Your task to perform on an android device: Add "logitech g pro" to the cart on amazon.com Image 0: 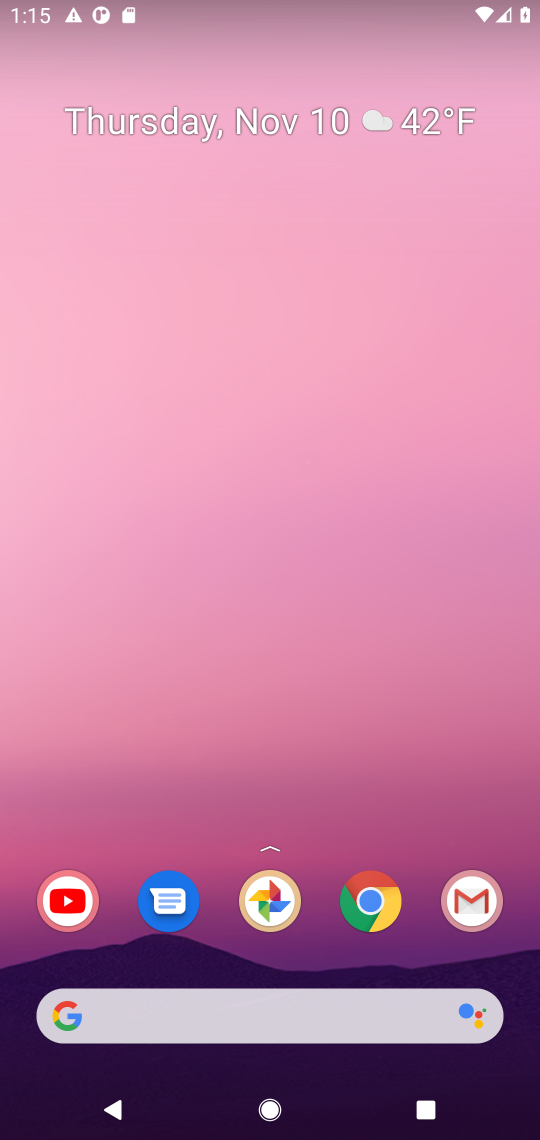
Step 0: click (517, 68)
Your task to perform on an android device: Add "logitech g pro" to the cart on amazon.com Image 1: 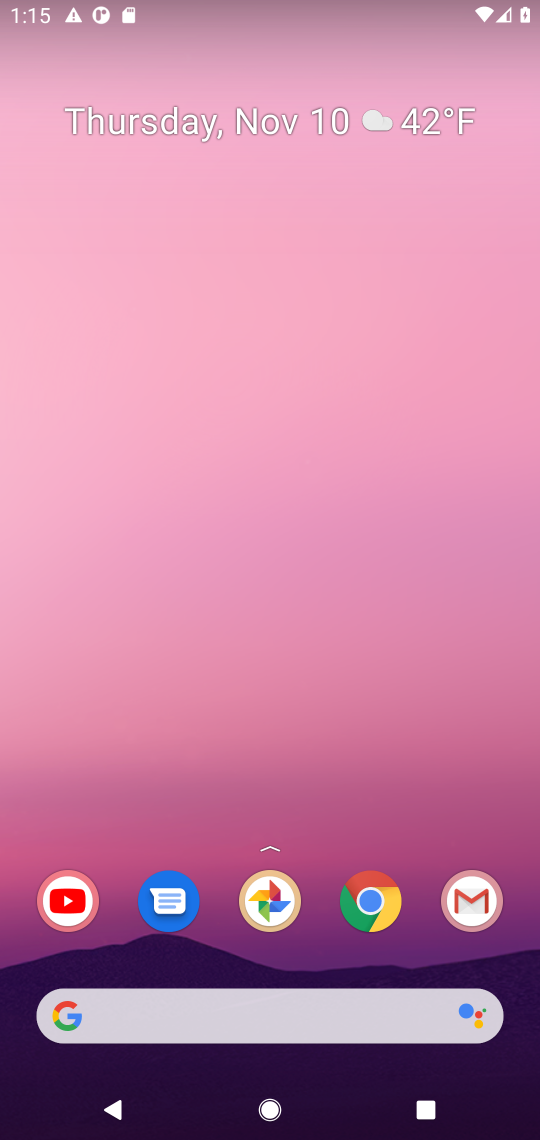
Step 1: drag from (195, 938) to (406, 99)
Your task to perform on an android device: Add "logitech g pro" to the cart on amazon.com Image 2: 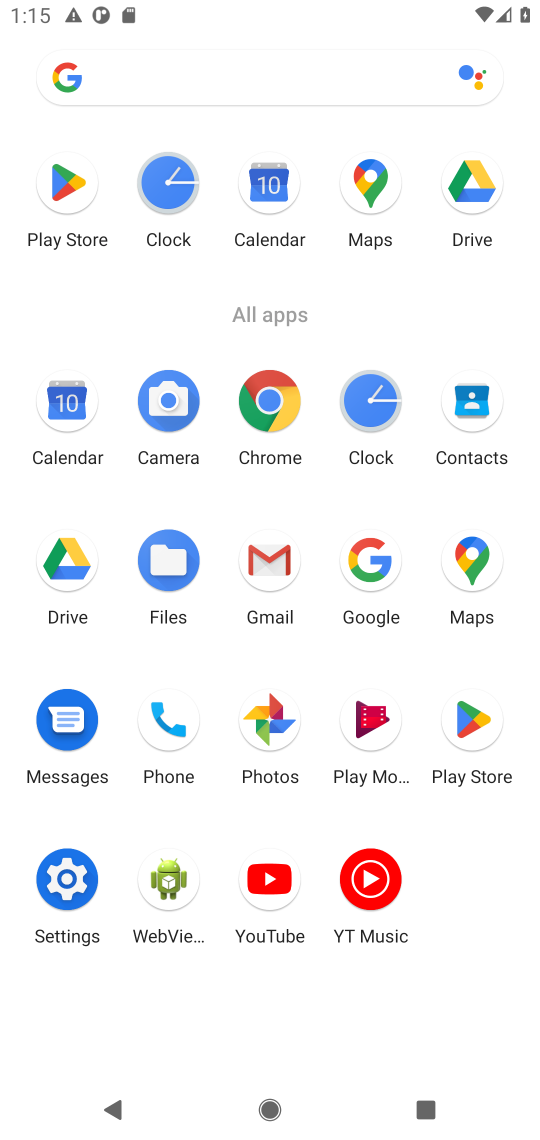
Step 2: click (276, 408)
Your task to perform on an android device: Add "logitech g pro" to the cart on amazon.com Image 3: 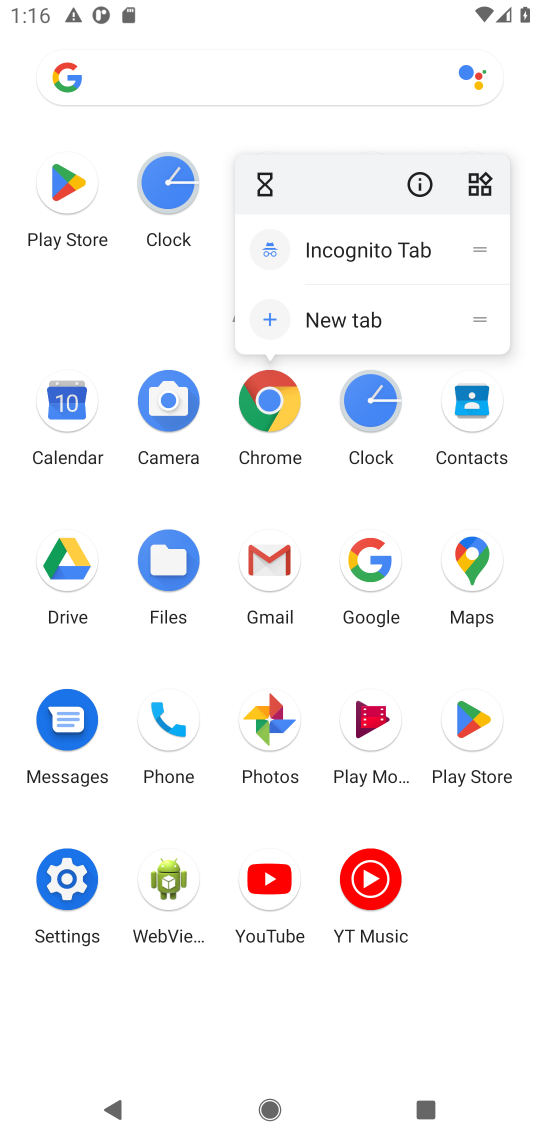
Step 3: click (276, 407)
Your task to perform on an android device: Add "logitech g pro" to the cart on amazon.com Image 4: 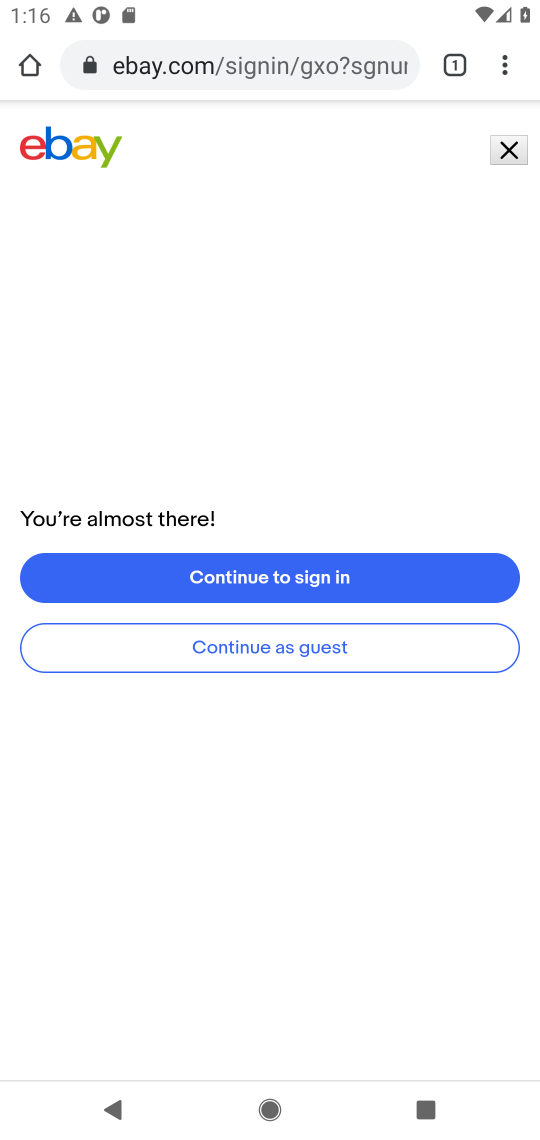
Step 4: click (220, 53)
Your task to perform on an android device: Add "logitech g pro" to the cart on amazon.com Image 5: 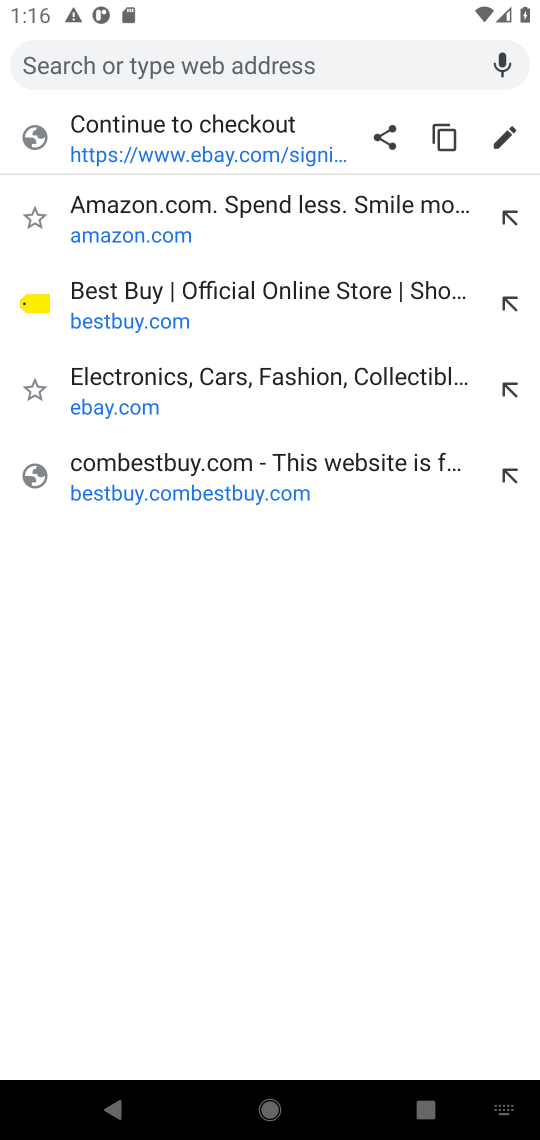
Step 5: type "amazon.com"
Your task to perform on an android device: Add "logitech g pro" to the cart on amazon.com Image 6: 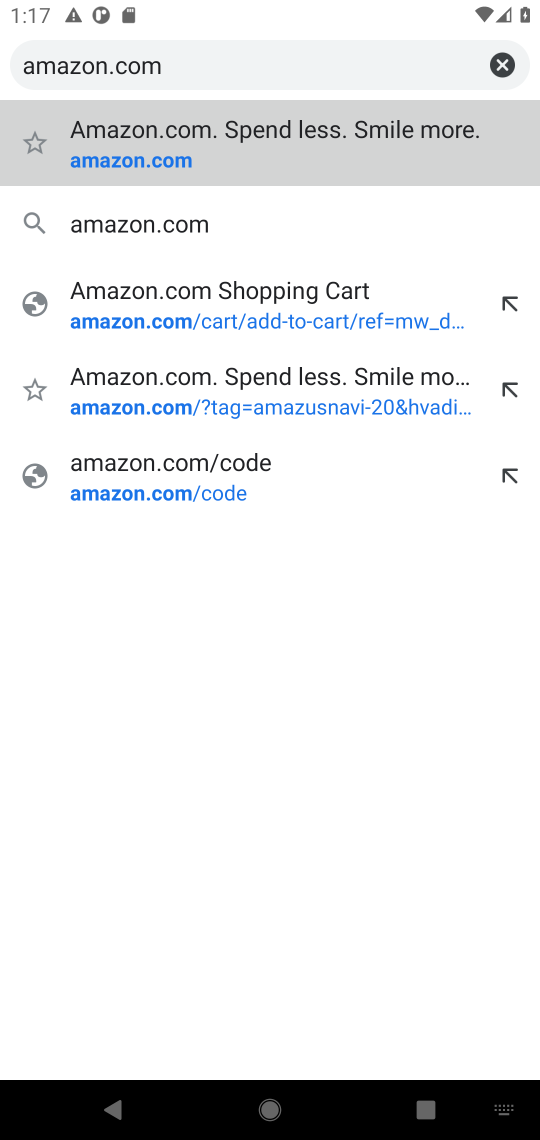
Step 6: press enter
Your task to perform on an android device: Add "logitech g pro" to the cart on amazon.com Image 7: 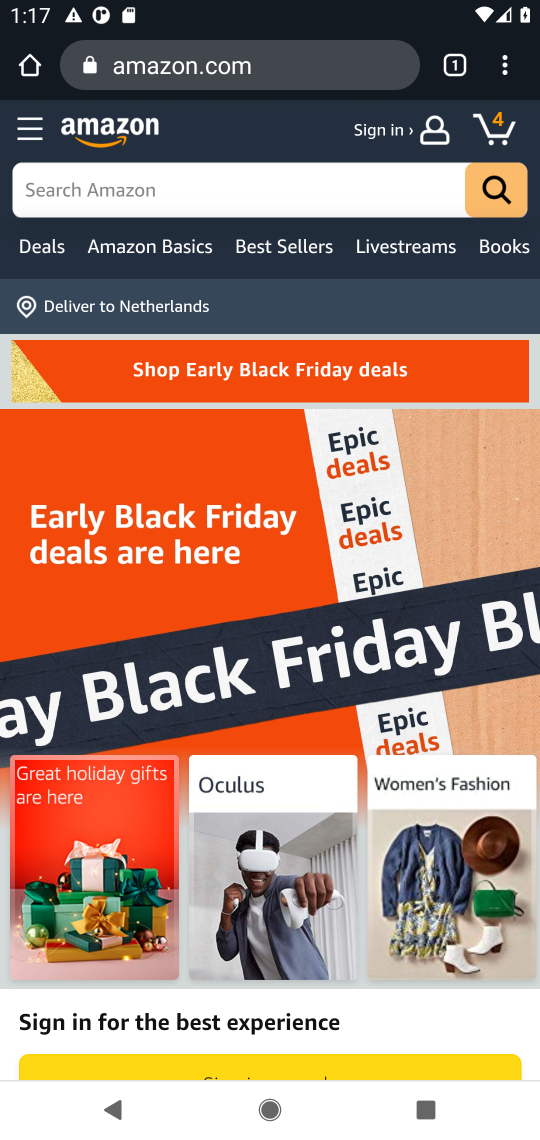
Step 7: click (72, 179)
Your task to perform on an android device: Add "logitech g pro" to the cart on amazon.com Image 8: 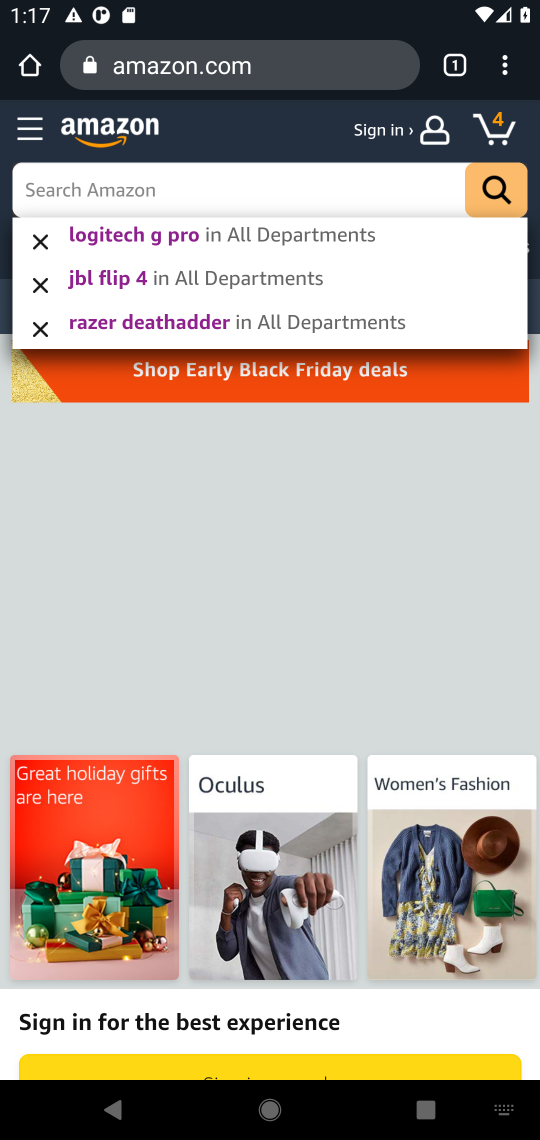
Step 8: type "logitech g pro"
Your task to perform on an android device: Add "logitech g pro" to the cart on amazon.com Image 9: 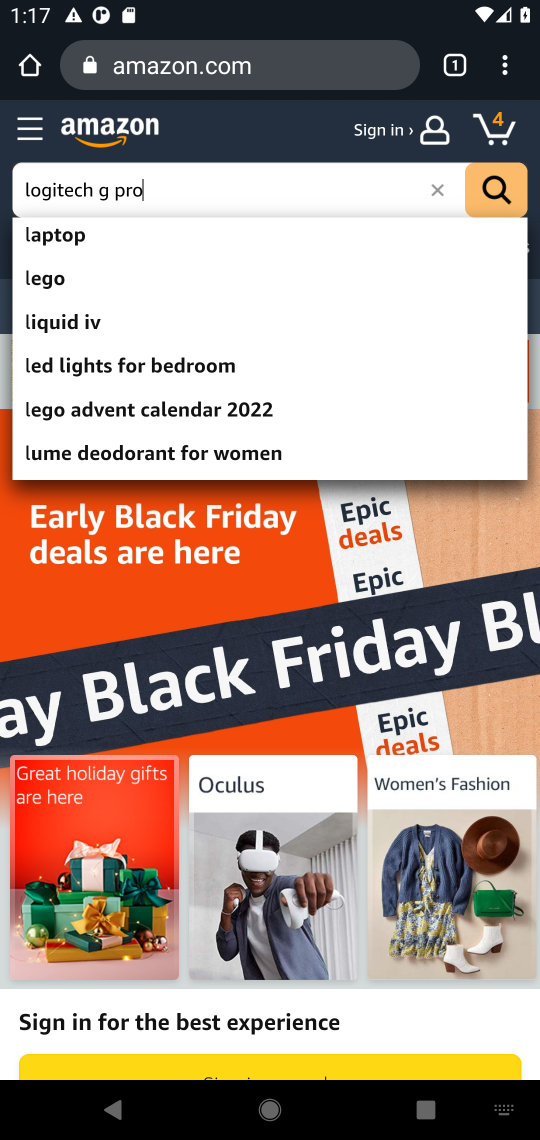
Step 9: press enter
Your task to perform on an android device: Add "logitech g pro" to the cart on amazon.com Image 10: 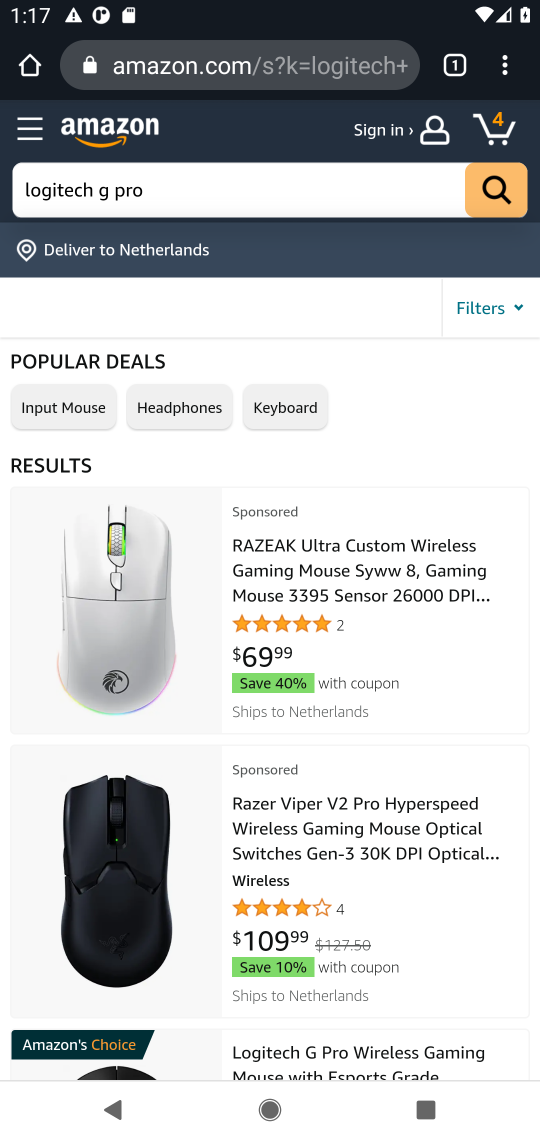
Step 10: click (240, 563)
Your task to perform on an android device: Add "logitech g pro" to the cart on amazon.com Image 11: 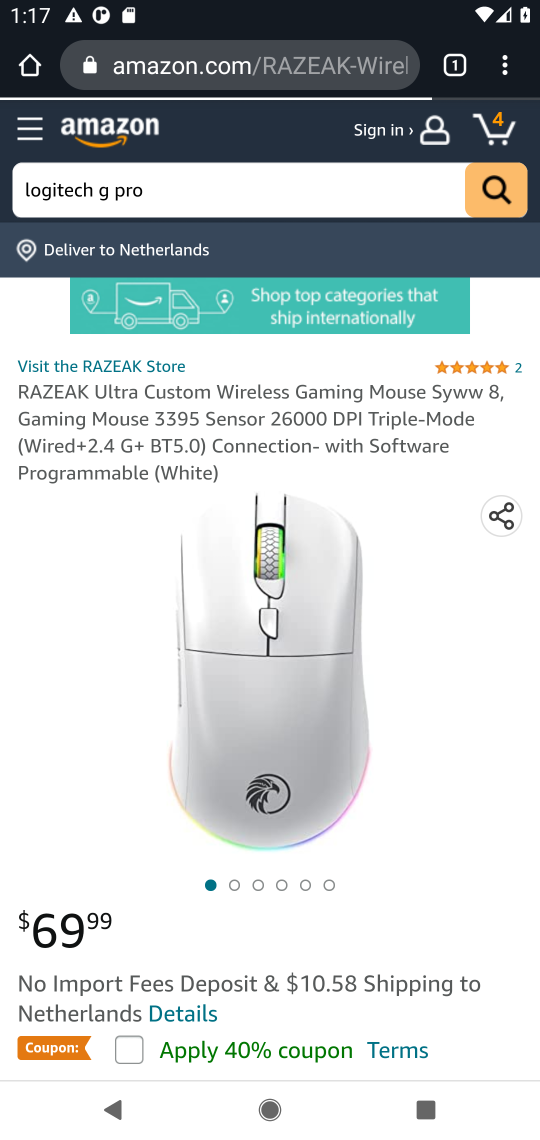
Step 11: drag from (278, 453) to (280, 388)
Your task to perform on an android device: Add "logitech g pro" to the cart on amazon.com Image 12: 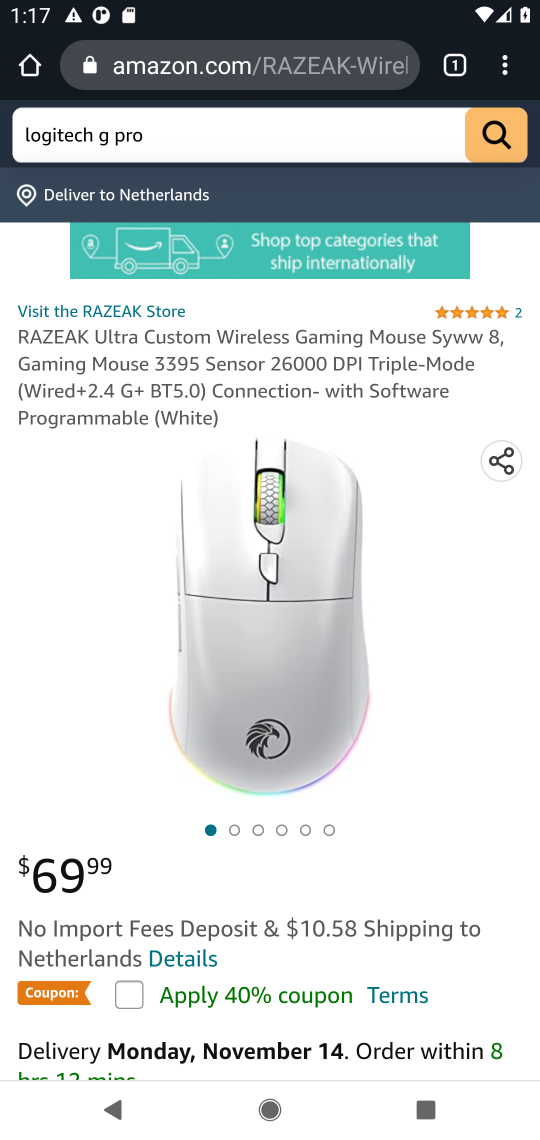
Step 12: drag from (144, 751) to (214, 299)
Your task to perform on an android device: Add "logitech g pro" to the cart on amazon.com Image 13: 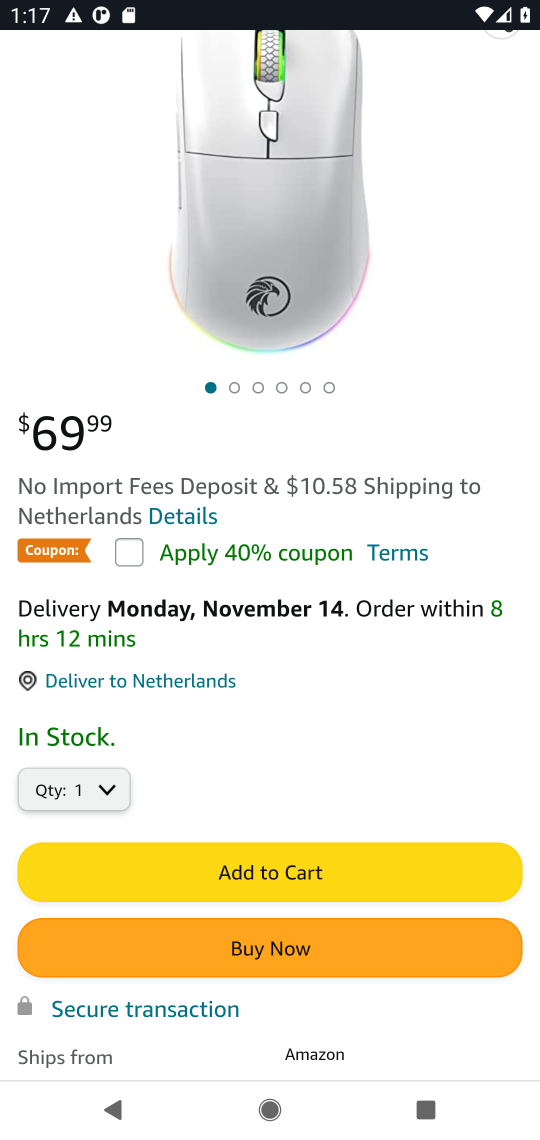
Step 13: click (234, 872)
Your task to perform on an android device: Add "logitech g pro" to the cart on amazon.com Image 14: 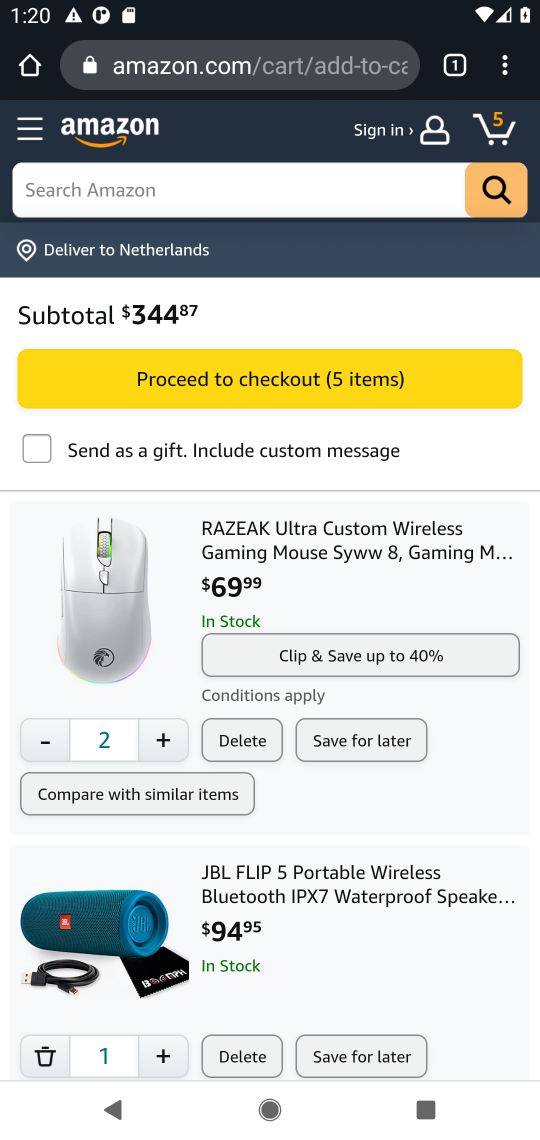
Step 14: task complete